Your task to perform on an android device: Open Chrome and go to the settings page Image 0: 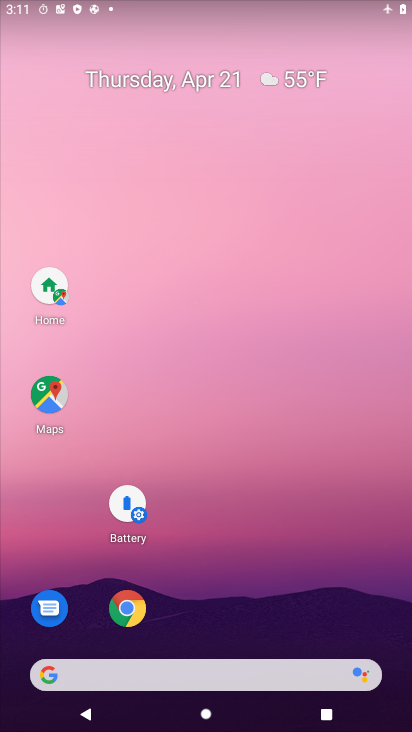
Step 0: drag from (345, 299) to (325, 22)
Your task to perform on an android device: Open Chrome and go to the settings page Image 1: 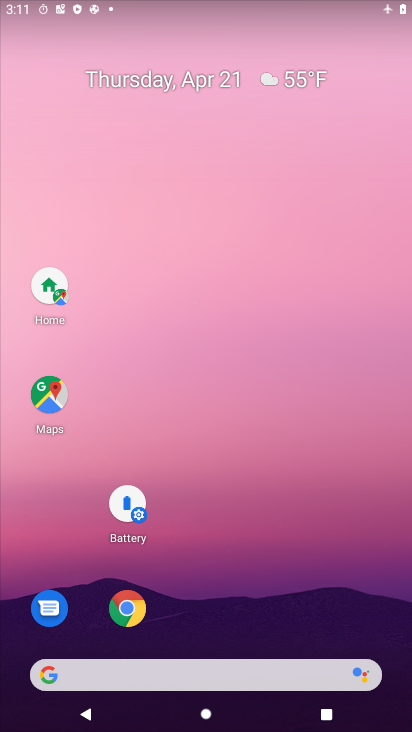
Step 1: drag from (249, 598) to (325, 8)
Your task to perform on an android device: Open Chrome and go to the settings page Image 2: 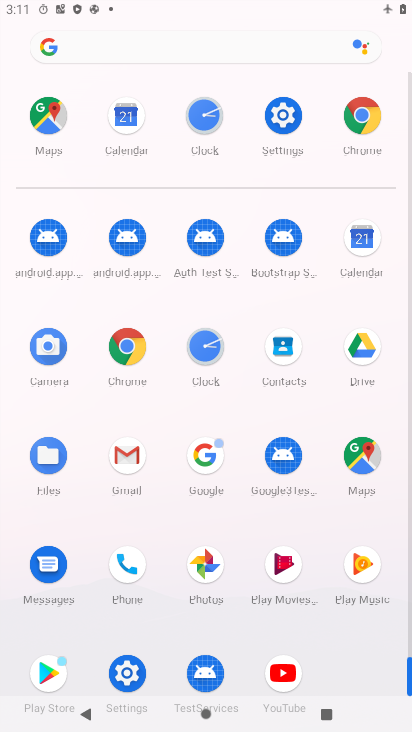
Step 2: click (360, 101)
Your task to perform on an android device: Open Chrome and go to the settings page Image 3: 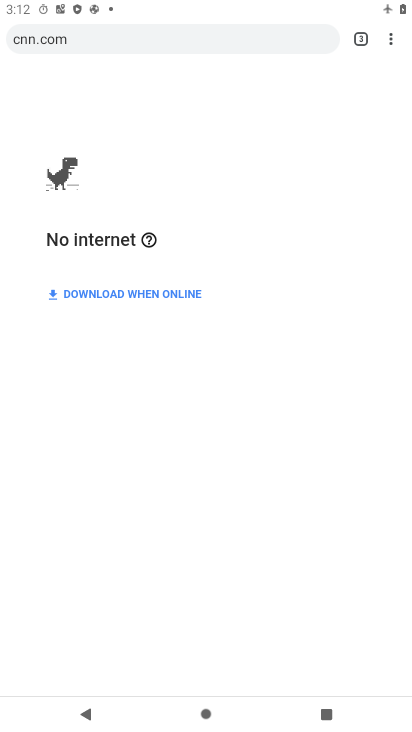
Step 3: task complete